Your task to perform on an android device: Open sound settings Image 0: 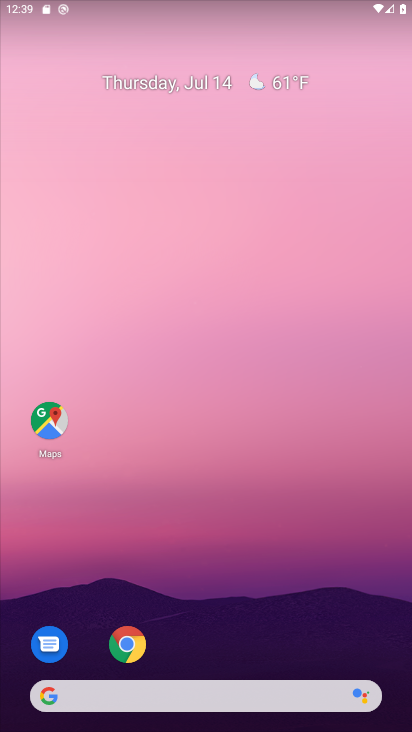
Step 0: drag from (225, 644) to (244, 61)
Your task to perform on an android device: Open sound settings Image 1: 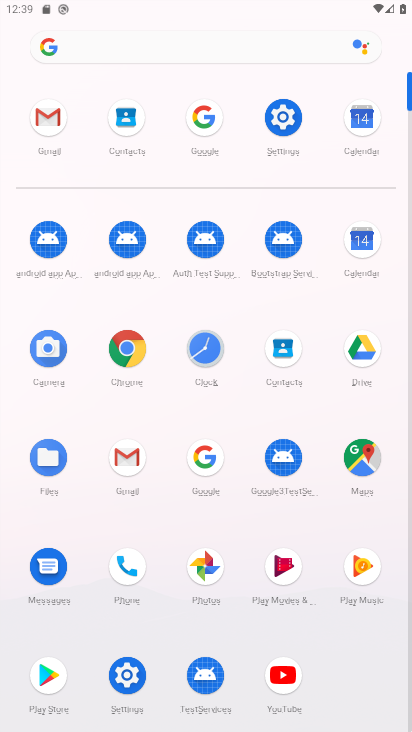
Step 1: click (280, 109)
Your task to perform on an android device: Open sound settings Image 2: 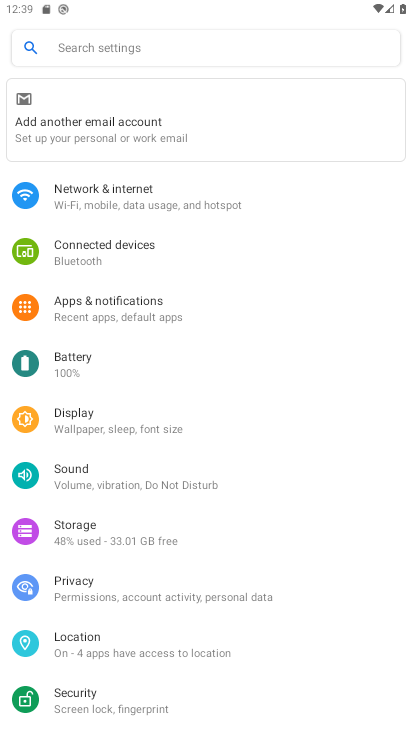
Step 2: click (110, 470)
Your task to perform on an android device: Open sound settings Image 3: 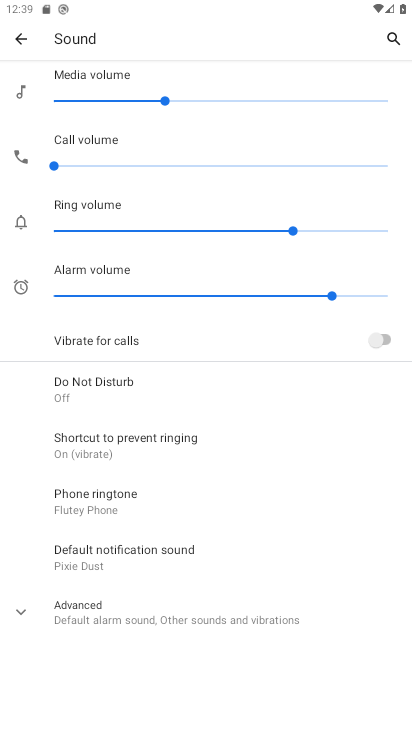
Step 3: task complete